Your task to perform on an android device: choose inbox layout in the gmail app Image 0: 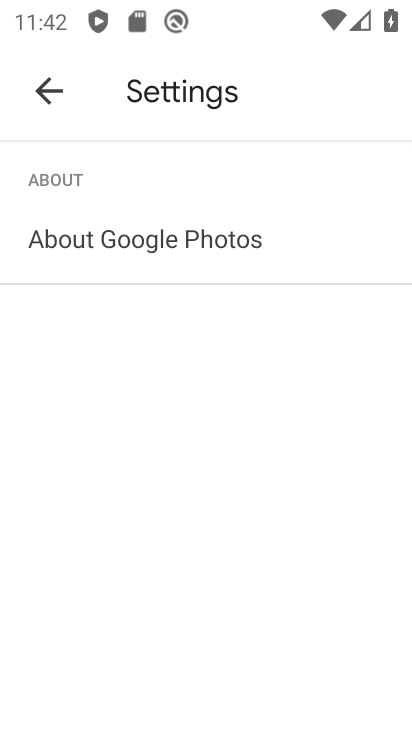
Step 0: press home button
Your task to perform on an android device: choose inbox layout in the gmail app Image 1: 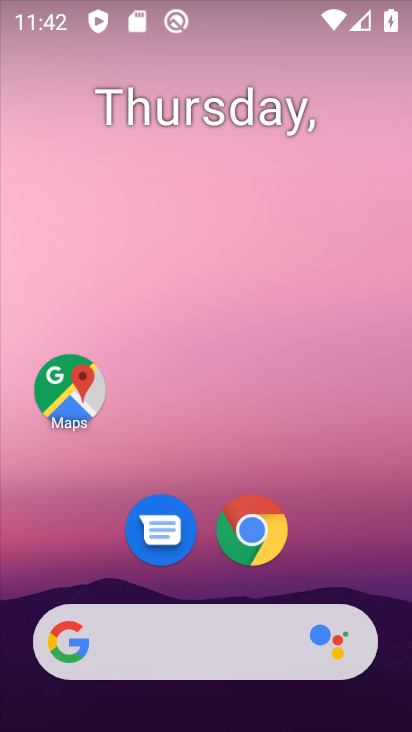
Step 1: drag from (341, 549) to (279, 27)
Your task to perform on an android device: choose inbox layout in the gmail app Image 2: 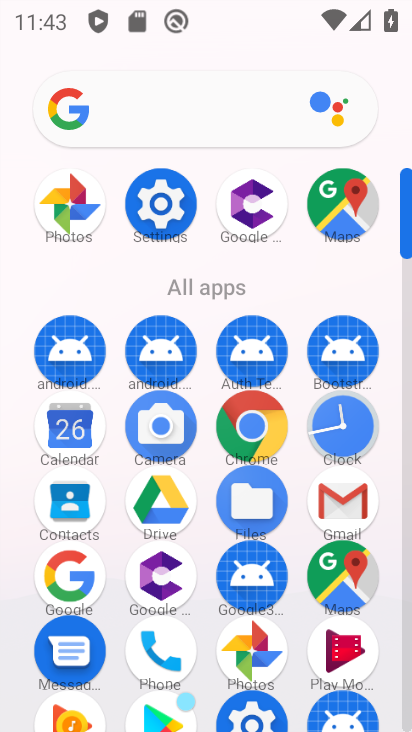
Step 2: drag from (203, 623) to (226, 381)
Your task to perform on an android device: choose inbox layout in the gmail app Image 3: 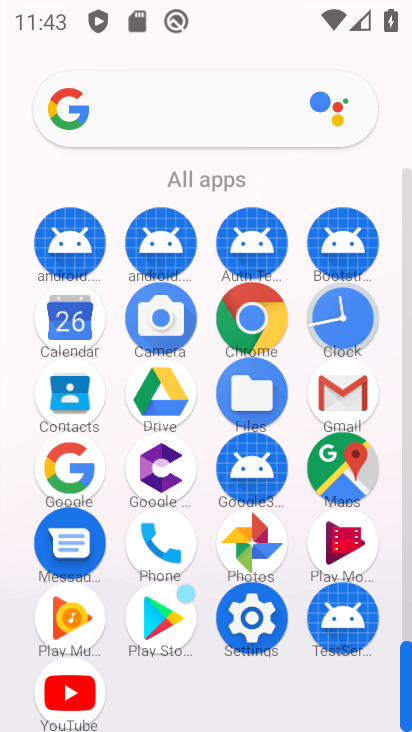
Step 3: click (344, 388)
Your task to perform on an android device: choose inbox layout in the gmail app Image 4: 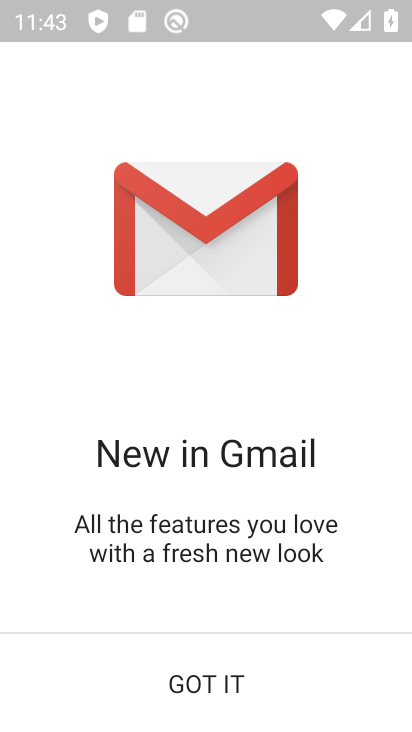
Step 4: click (234, 679)
Your task to perform on an android device: choose inbox layout in the gmail app Image 5: 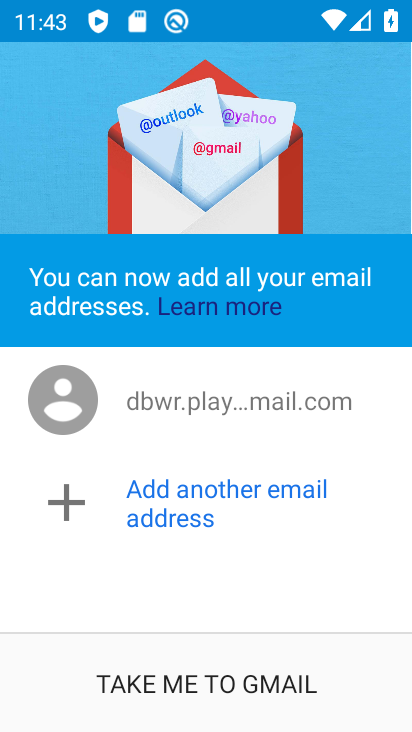
Step 5: click (234, 679)
Your task to perform on an android device: choose inbox layout in the gmail app Image 6: 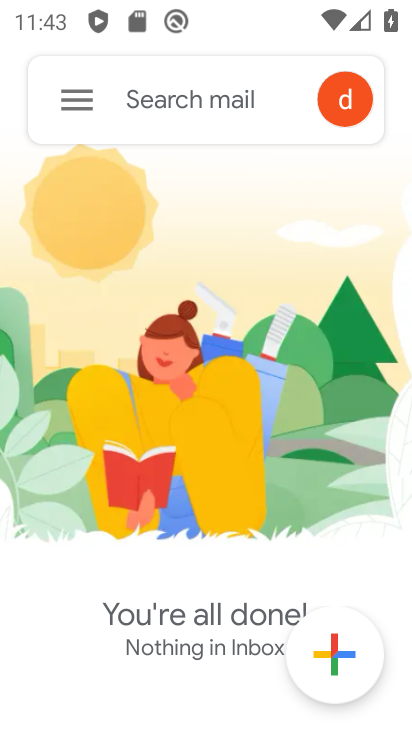
Step 6: click (78, 108)
Your task to perform on an android device: choose inbox layout in the gmail app Image 7: 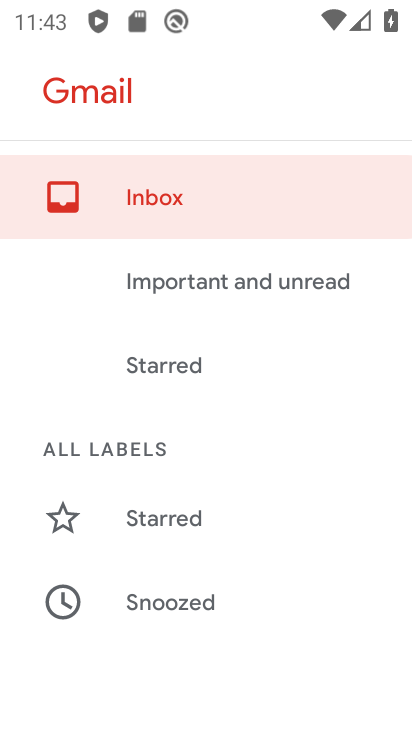
Step 7: drag from (169, 540) to (235, 438)
Your task to perform on an android device: choose inbox layout in the gmail app Image 8: 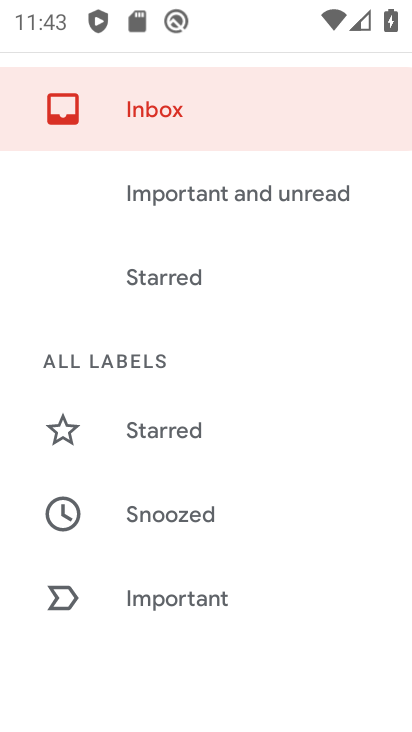
Step 8: drag from (169, 556) to (236, 472)
Your task to perform on an android device: choose inbox layout in the gmail app Image 9: 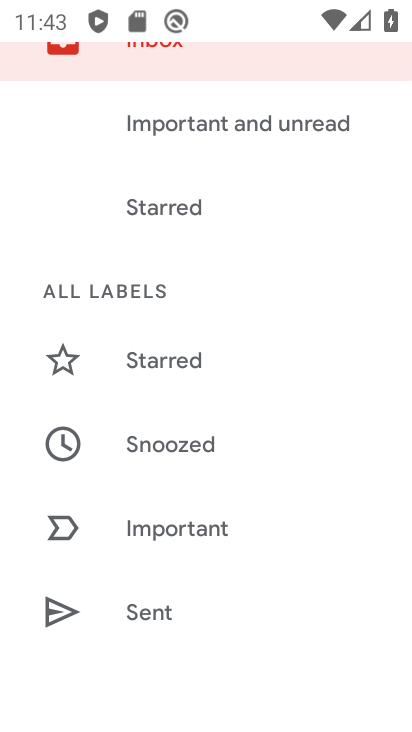
Step 9: drag from (185, 568) to (236, 448)
Your task to perform on an android device: choose inbox layout in the gmail app Image 10: 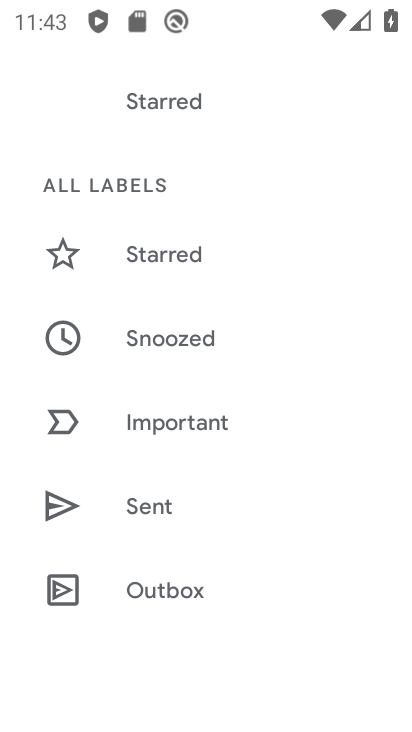
Step 10: drag from (167, 550) to (241, 445)
Your task to perform on an android device: choose inbox layout in the gmail app Image 11: 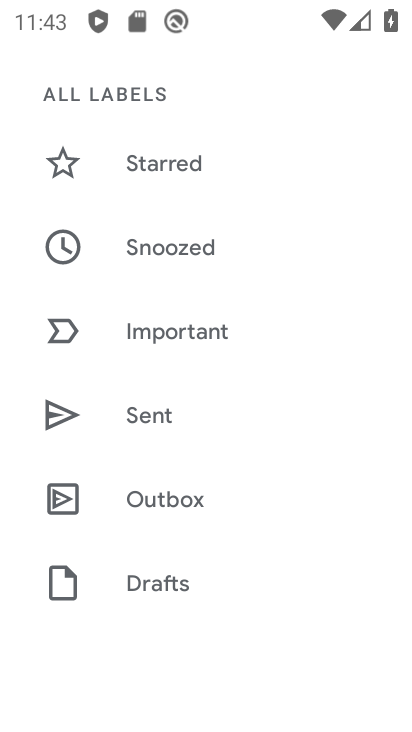
Step 11: drag from (152, 548) to (234, 451)
Your task to perform on an android device: choose inbox layout in the gmail app Image 12: 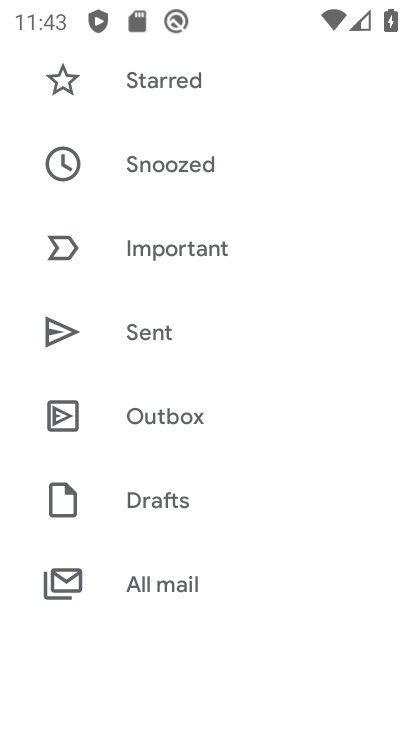
Step 12: drag from (156, 556) to (225, 474)
Your task to perform on an android device: choose inbox layout in the gmail app Image 13: 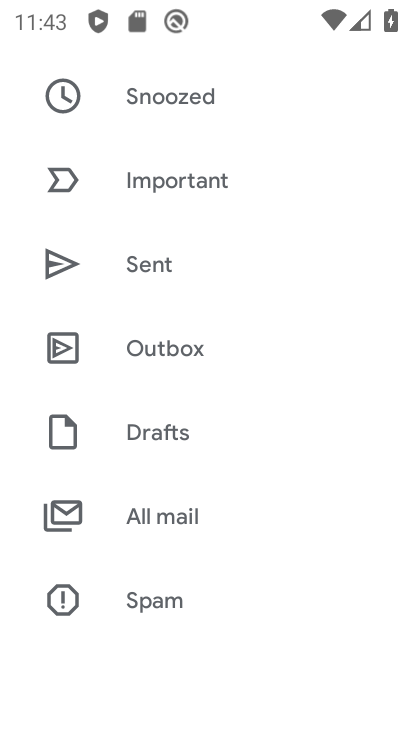
Step 13: drag from (172, 559) to (253, 471)
Your task to perform on an android device: choose inbox layout in the gmail app Image 14: 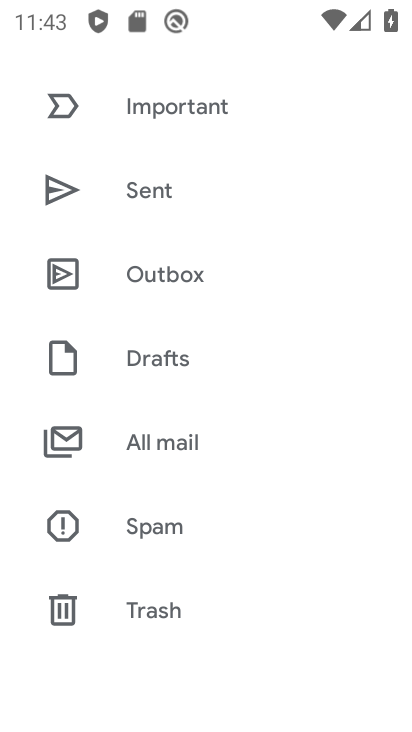
Step 14: drag from (160, 578) to (267, 472)
Your task to perform on an android device: choose inbox layout in the gmail app Image 15: 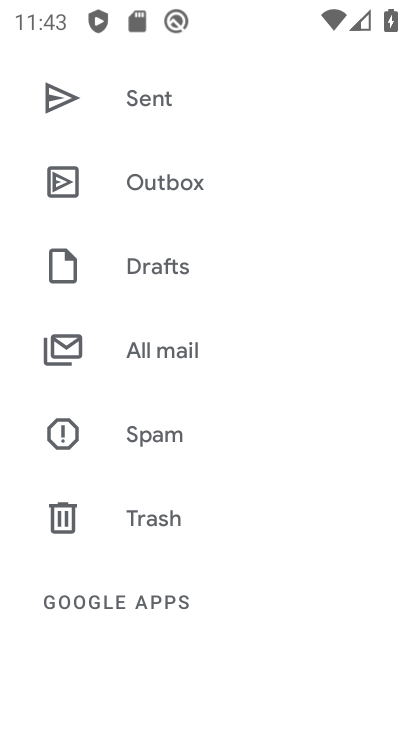
Step 15: drag from (153, 575) to (250, 447)
Your task to perform on an android device: choose inbox layout in the gmail app Image 16: 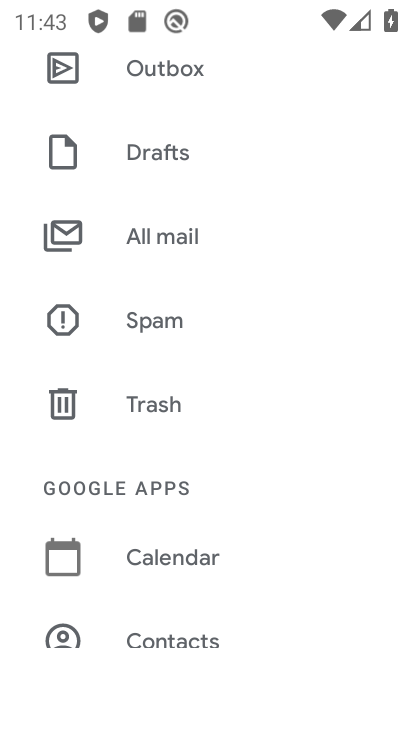
Step 16: drag from (172, 532) to (239, 427)
Your task to perform on an android device: choose inbox layout in the gmail app Image 17: 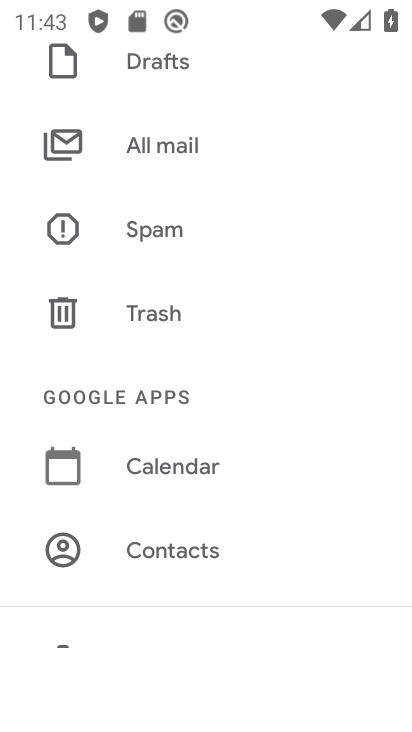
Step 17: drag from (159, 581) to (233, 431)
Your task to perform on an android device: choose inbox layout in the gmail app Image 18: 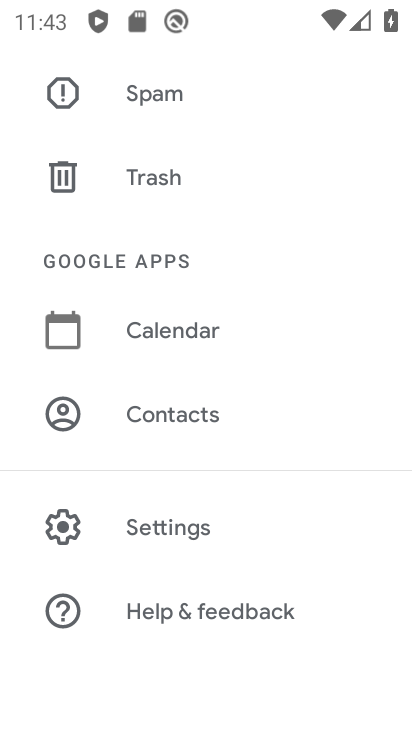
Step 18: click (168, 520)
Your task to perform on an android device: choose inbox layout in the gmail app Image 19: 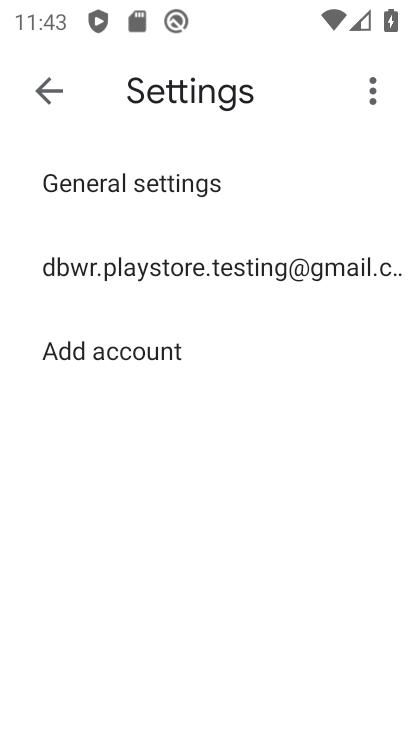
Step 19: click (135, 276)
Your task to perform on an android device: choose inbox layout in the gmail app Image 20: 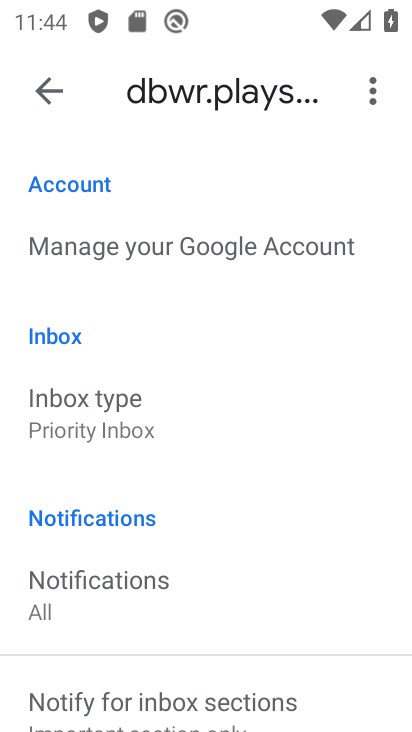
Step 20: click (127, 439)
Your task to perform on an android device: choose inbox layout in the gmail app Image 21: 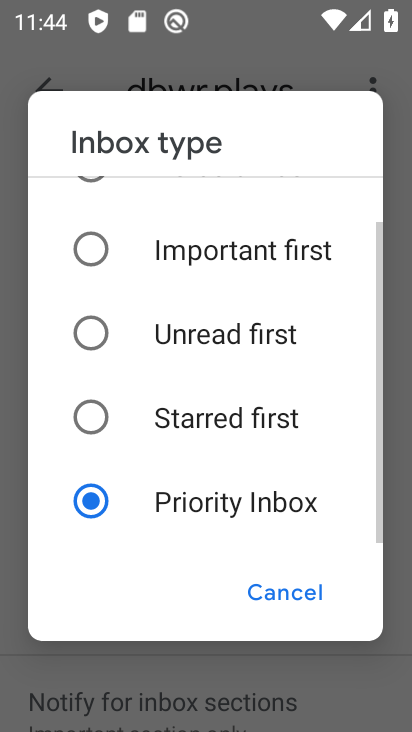
Step 21: drag from (148, 334) to (148, 559)
Your task to perform on an android device: choose inbox layout in the gmail app Image 22: 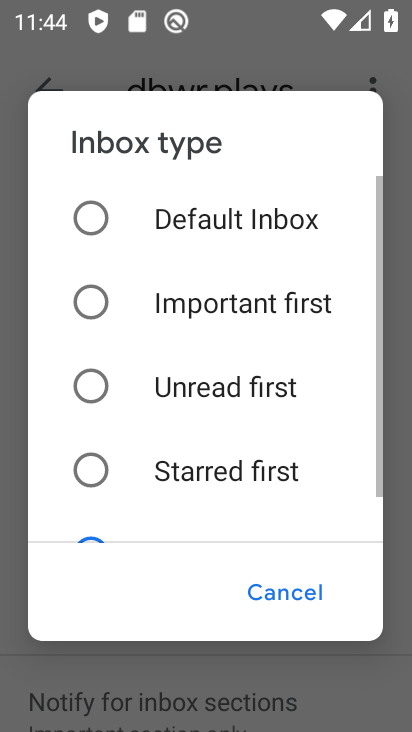
Step 22: click (99, 216)
Your task to perform on an android device: choose inbox layout in the gmail app Image 23: 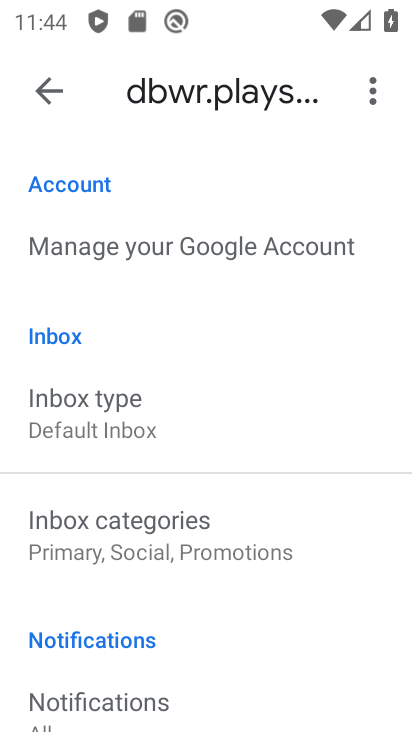
Step 23: task complete